Your task to perform on an android device: Go to ESPN.com Image 0: 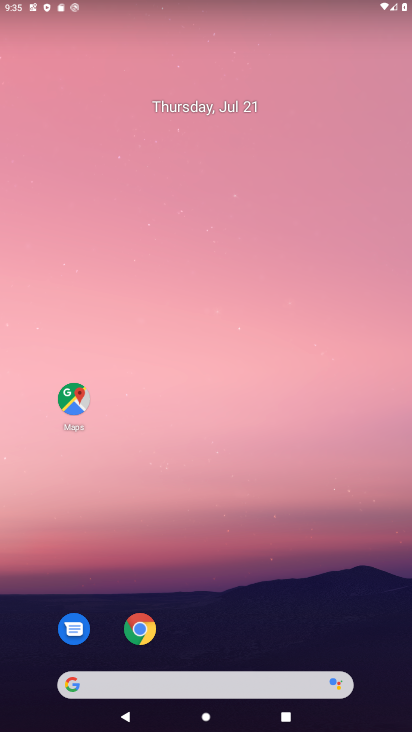
Step 0: click (160, 637)
Your task to perform on an android device: Go to ESPN.com Image 1: 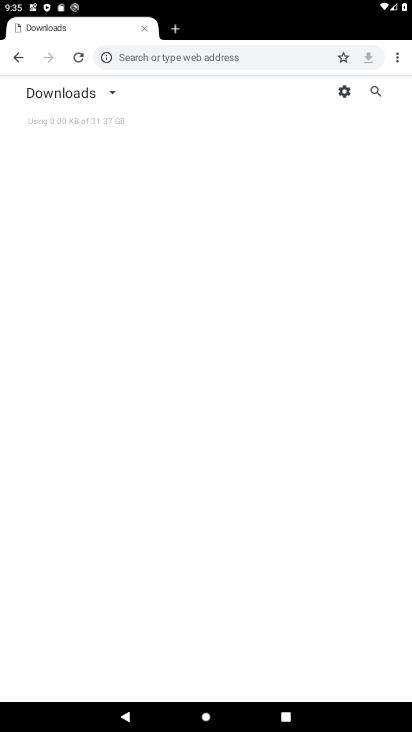
Step 1: click (167, 30)
Your task to perform on an android device: Go to ESPN.com Image 2: 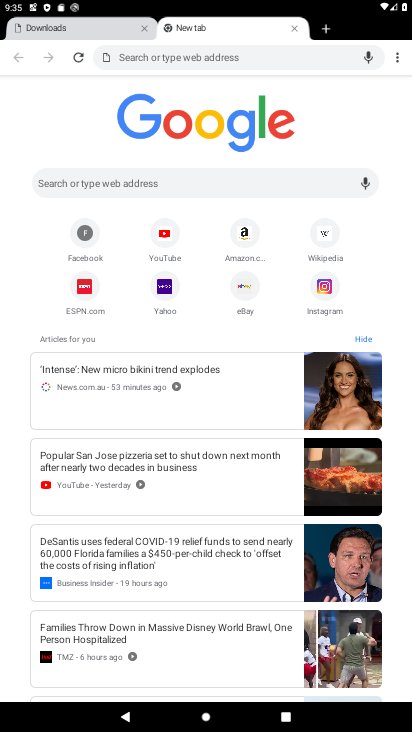
Step 2: click (78, 286)
Your task to perform on an android device: Go to ESPN.com Image 3: 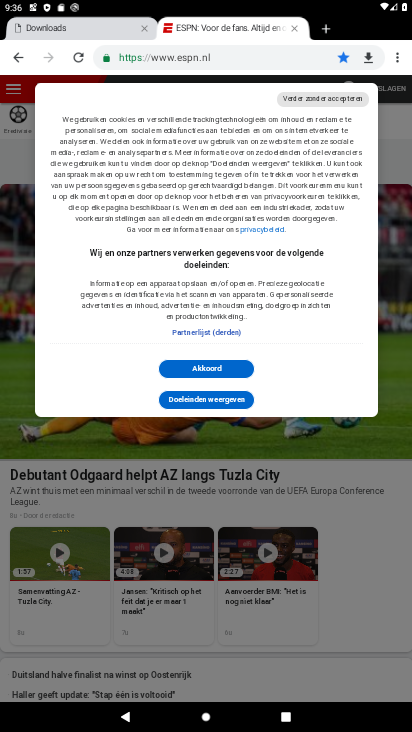
Step 3: task complete